Your task to perform on an android device: Open settings Image 0: 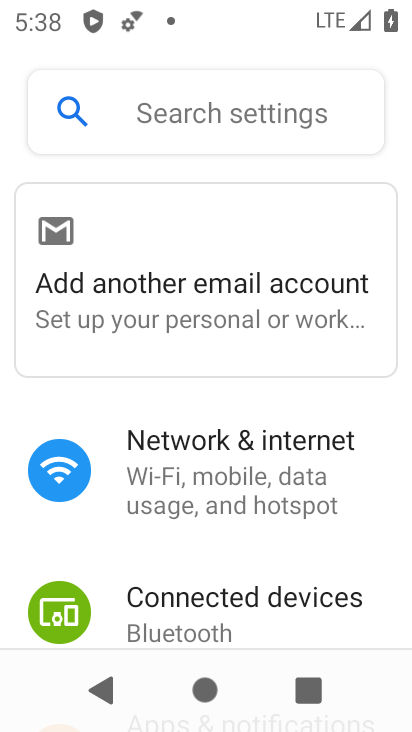
Step 0: press home button
Your task to perform on an android device: Open settings Image 1: 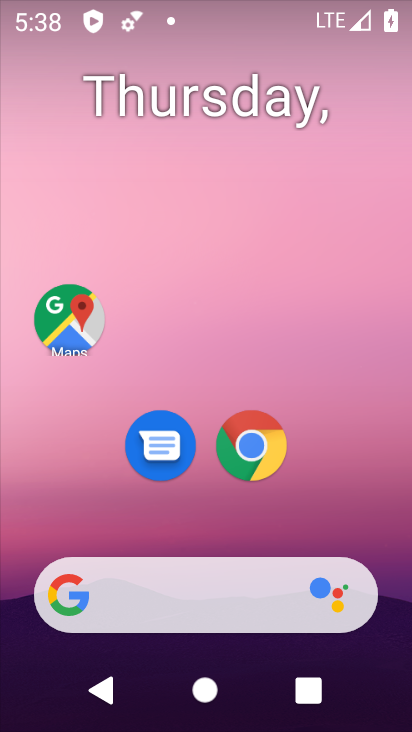
Step 1: drag from (325, 500) to (338, 127)
Your task to perform on an android device: Open settings Image 2: 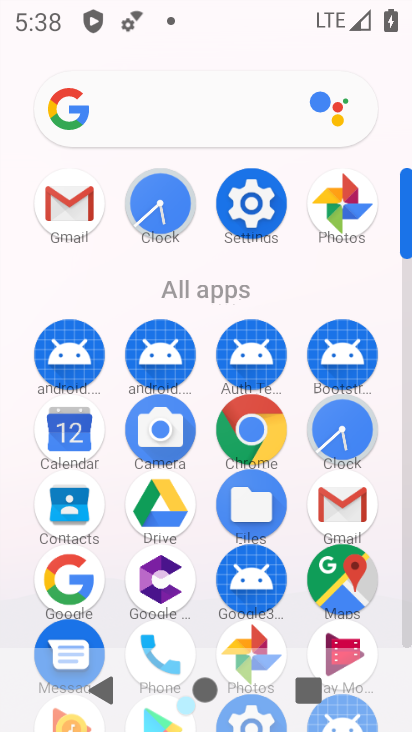
Step 2: click (258, 201)
Your task to perform on an android device: Open settings Image 3: 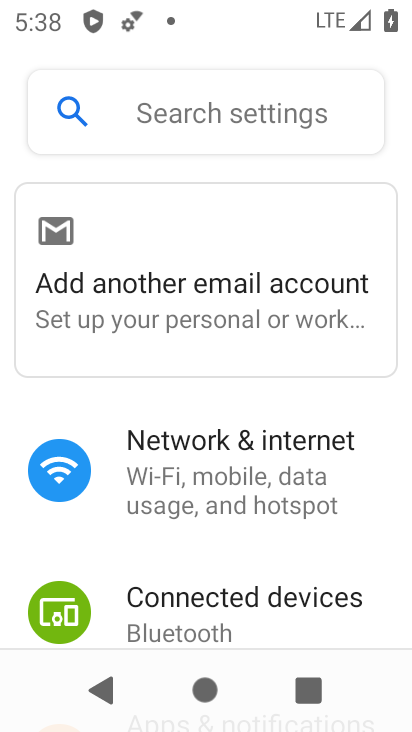
Step 3: task complete